Your task to perform on an android device: allow cookies in the chrome app Image 0: 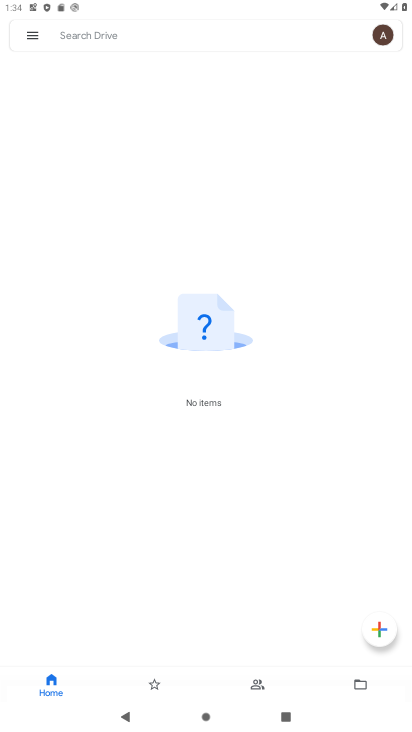
Step 0: press home button
Your task to perform on an android device: allow cookies in the chrome app Image 1: 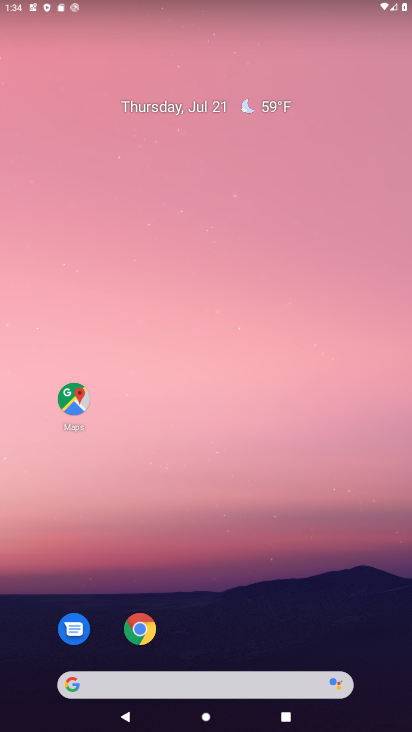
Step 1: click (140, 631)
Your task to perform on an android device: allow cookies in the chrome app Image 2: 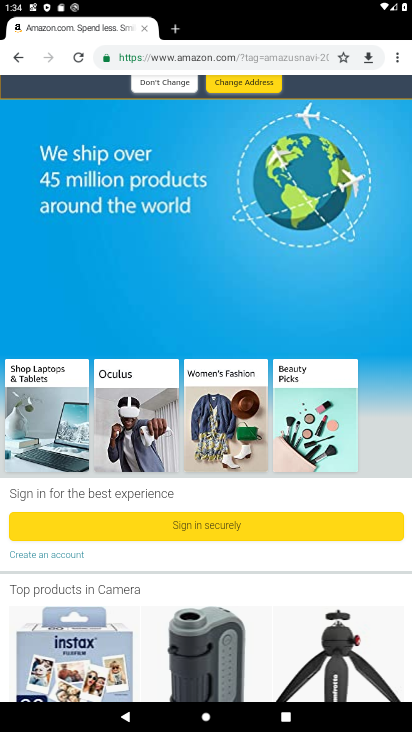
Step 2: click (397, 62)
Your task to perform on an android device: allow cookies in the chrome app Image 3: 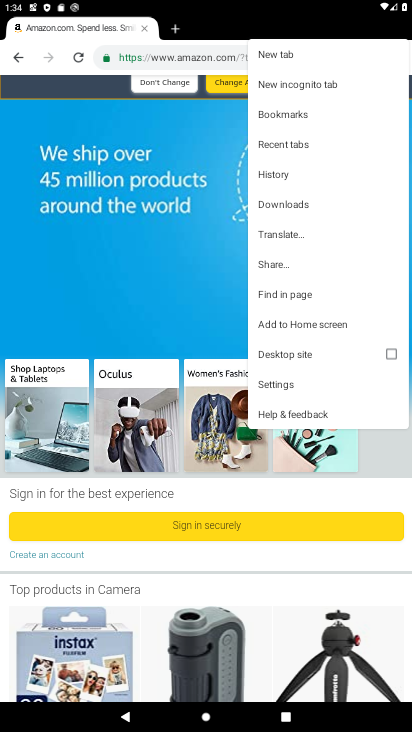
Step 3: click (277, 379)
Your task to perform on an android device: allow cookies in the chrome app Image 4: 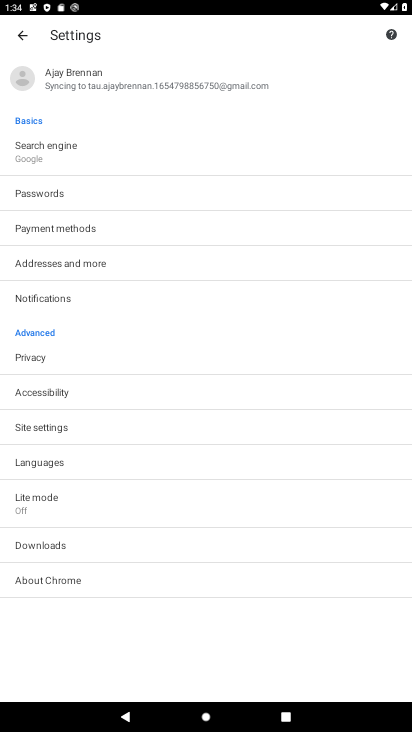
Step 4: click (42, 422)
Your task to perform on an android device: allow cookies in the chrome app Image 5: 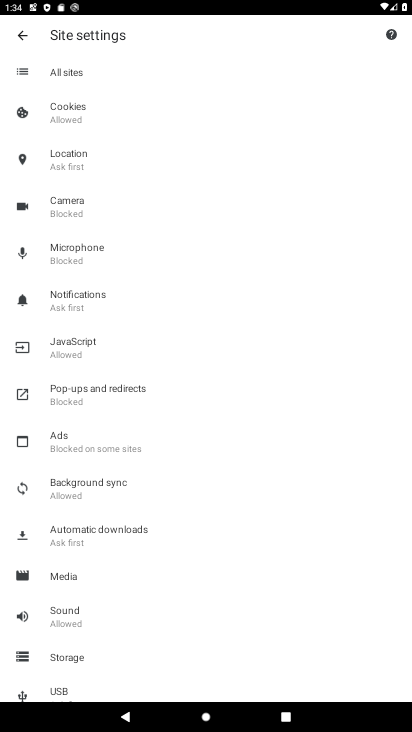
Step 5: click (62, 113)
Your task to perform on an android device: allow cookies in the chrome app Image 6: 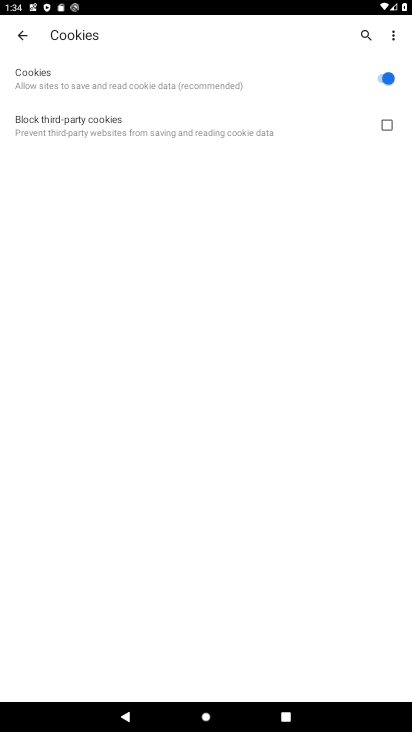
Step 6: task complete